Your task to perform on an android device: When is my next meeting? Image 0: 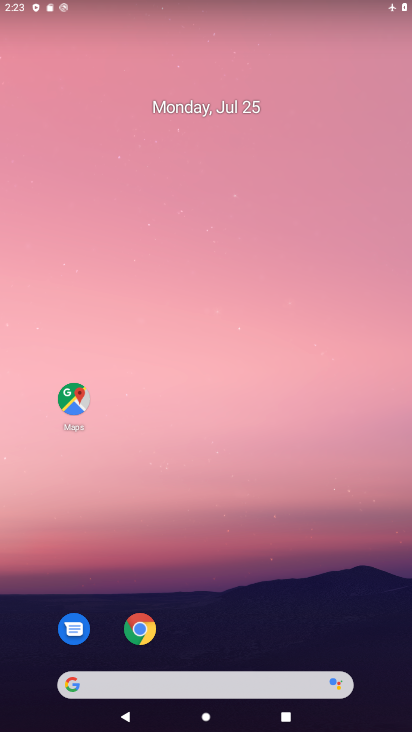
Step 0: drag from (237, 621) to (151, 69)
Your task to perform on an android device: When is my next meeting? Image 1: 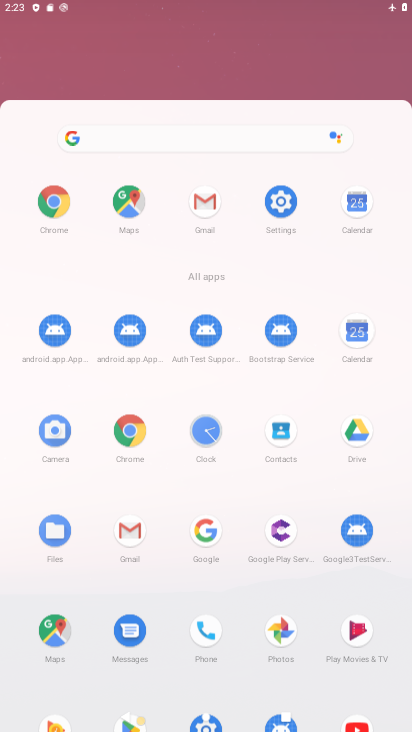
Step 1: drag from (154, 404) to (63, 44)
Your task to perform on an android device: When is my next meeting? Image 2: 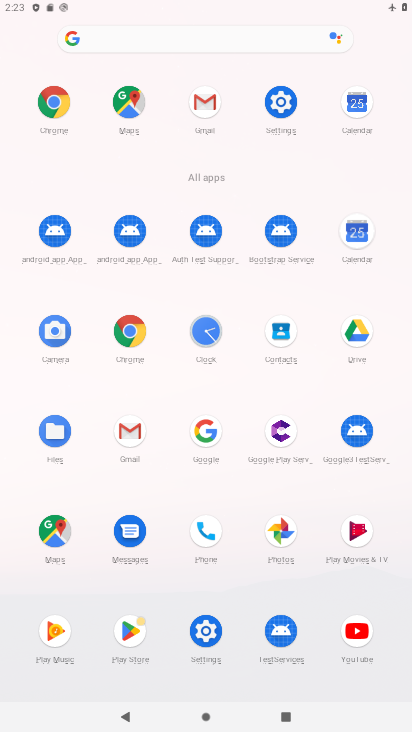
Step 2: click (354, 239)
Your task to perform on an android device: When is my next meeting? Image 3: 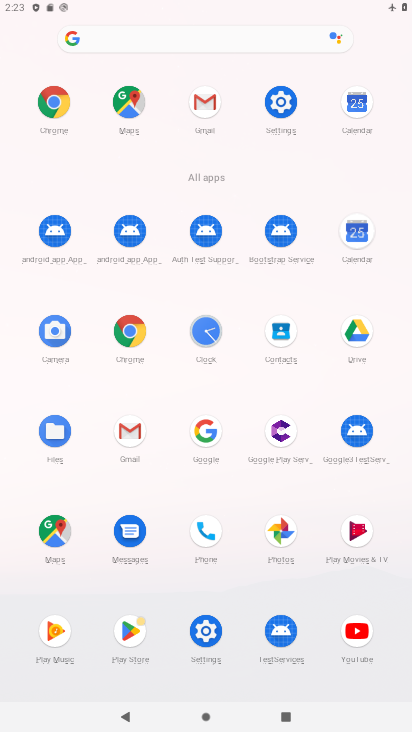
Step 3: click (355, 230)
Your task to perform on an android device: When is my next meeting? Image 4: 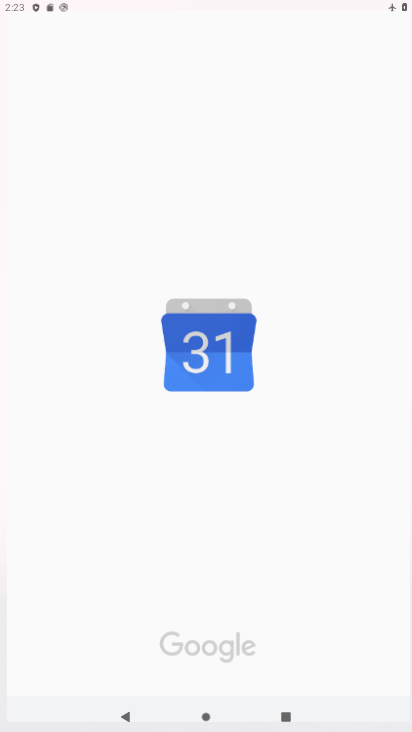
Step 4: click (355, 229)
Your task to perform on an android device: When is my next meeting? Image 5: 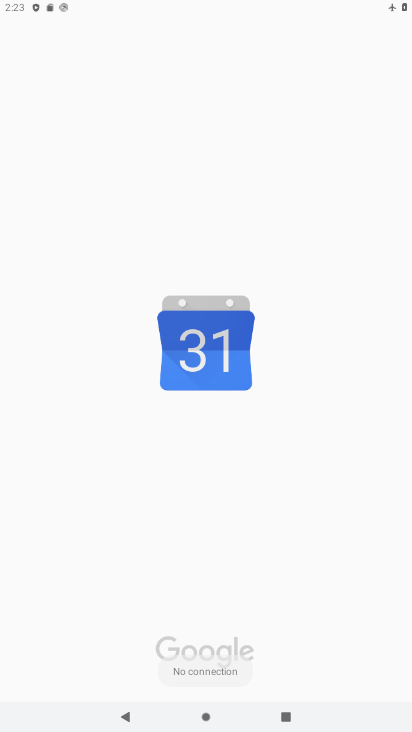
Step 5: click (355, 229)
Your task to perform on an android device: When is my next meeting? Image 6: 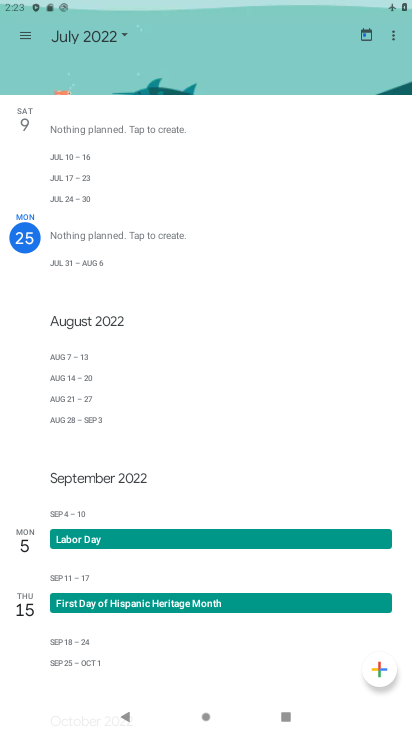
Step 6: click (117, 34)
Your task to perform on an android device: When is my next meeting? Image 7: 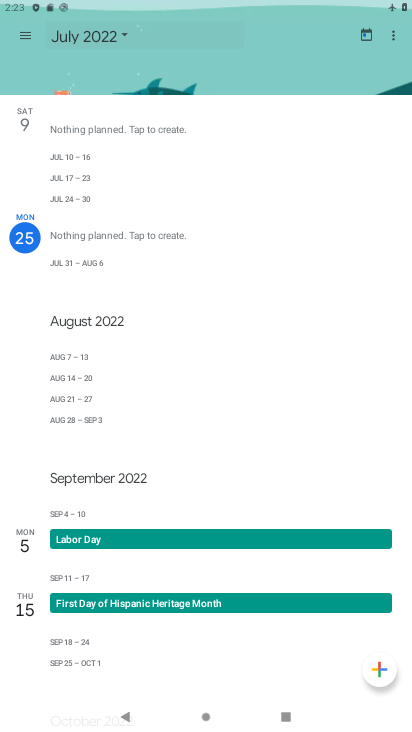
Step 7: click (118, 34)
Your task to perform on an android device: When is my next meeting? Image 8: 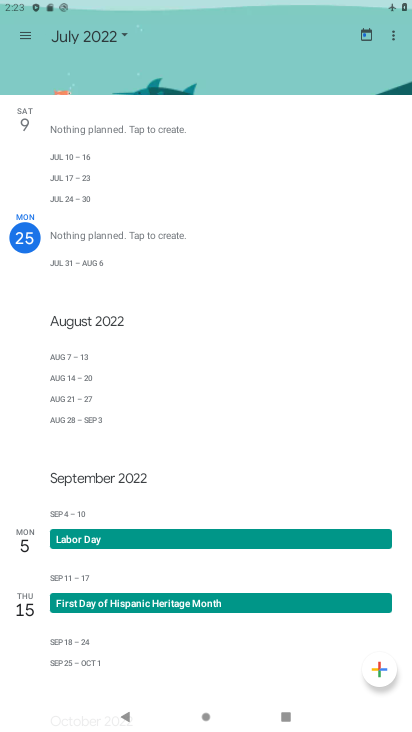
Step 8: click (123, 36)
Your task to perform on an android device: When is my next meeting? Image 9: 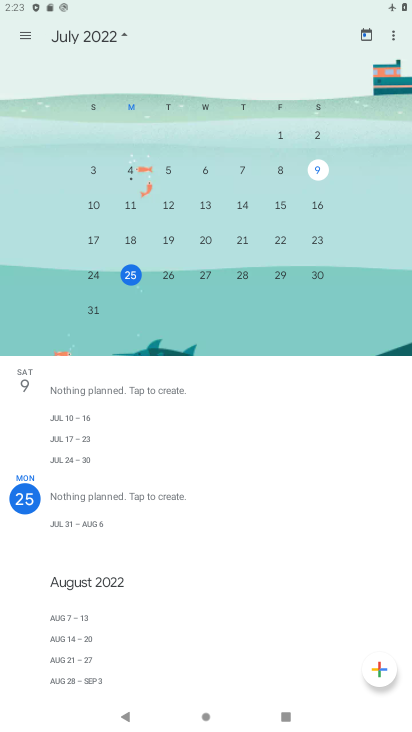
Step 9: task complete